Your task to perform on an android device: Go to wifi settings Image 0: 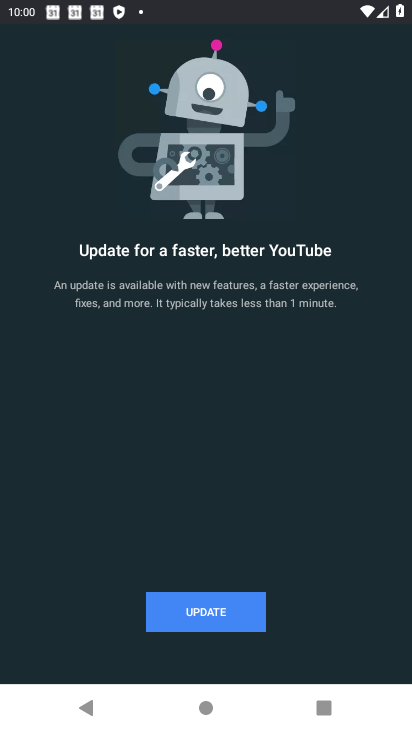
Step 0: click (238, 608)
Your task to perform on an android device: Go to wifi settings Image 1: 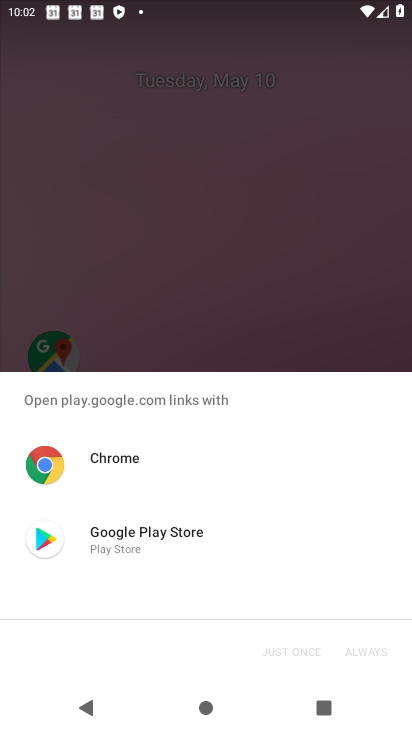
Step 1: click (310, 264)
Your task to perform on an android device: Go to wifi settings Image 2: 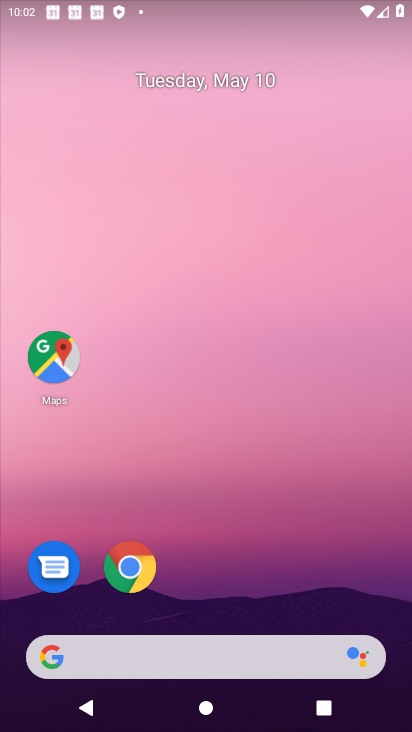
Step 2: drag from (315, 672) to (322, 4)
Your task to perform on an android device: Go to wifi settings Image 3: 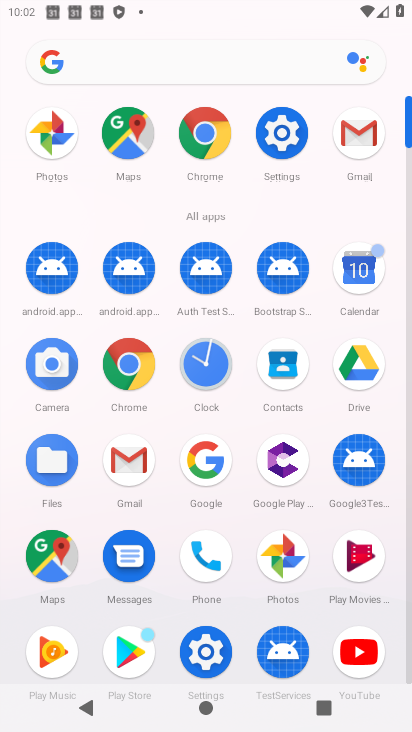
Step 3: click (199, 658)
Your task to perform on an android device: Go to wifi settings Image 4: 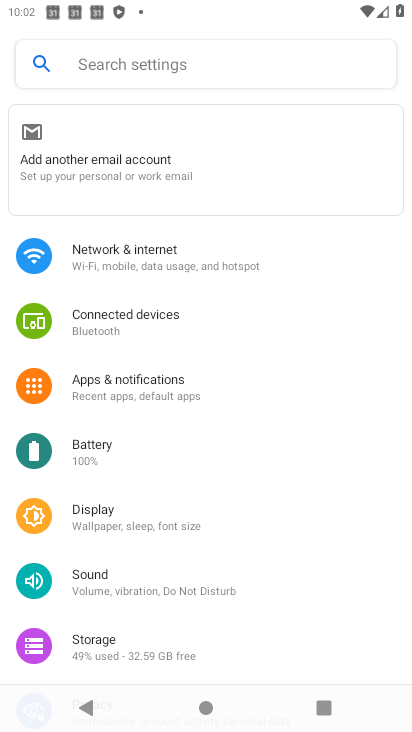
Step 4: click (162, 263)
Your task to perform on an android device: Go to wifi settings Image 5: 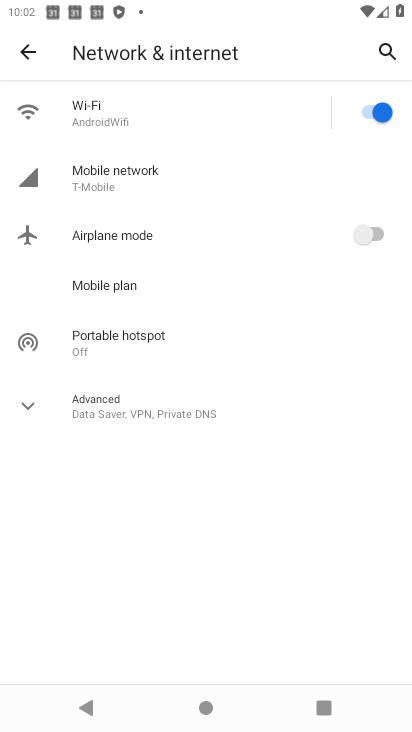
Step 5: click (149, 109)
Your task to perform on an android device: Go to wifi settings Image 6: 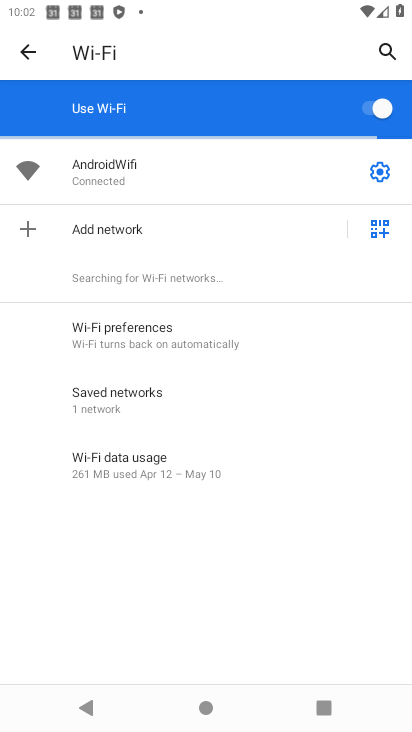
Step 6: press home button
Your task to perform on an android device: Go to wifi settings Image 7: 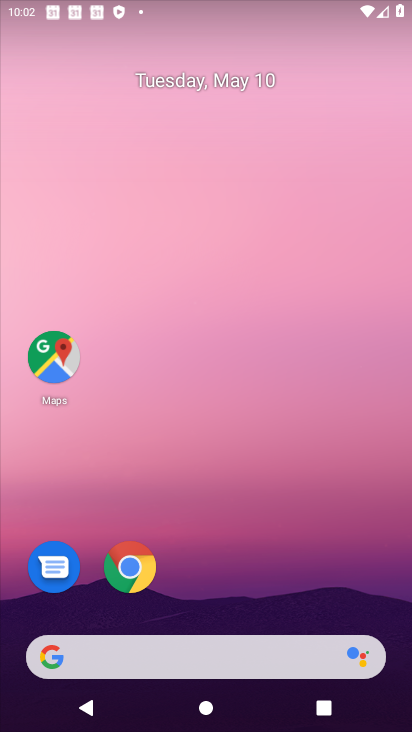
Step 7: drag from (231, 617) to (140, 0)
Your task to perform on an android device: Go to wifi settings Image 8: 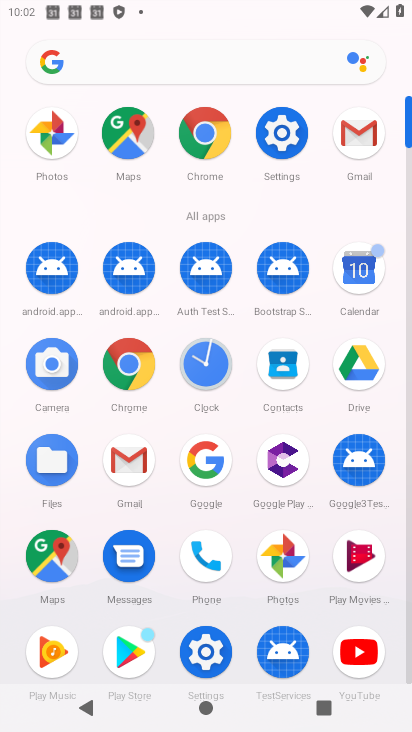
Step 8: click (270, 117)
Your task to perform on an android device: Go to wifi settings Image 9: 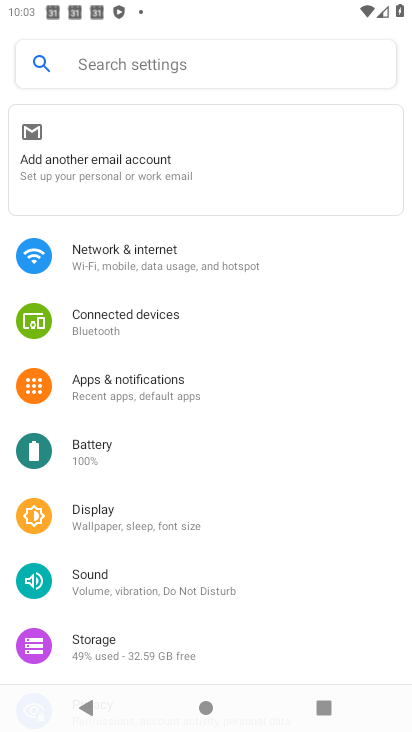
Step 9: click (176, 261)
Your task to perform on an android device: Go to wifi settings Image 10: 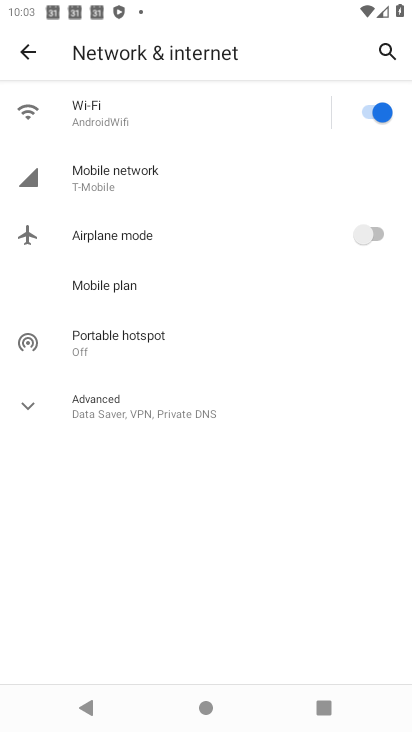
Step 10: click (139, 108)
Your task to perform on an android device: Go to wifi settings Image 11: 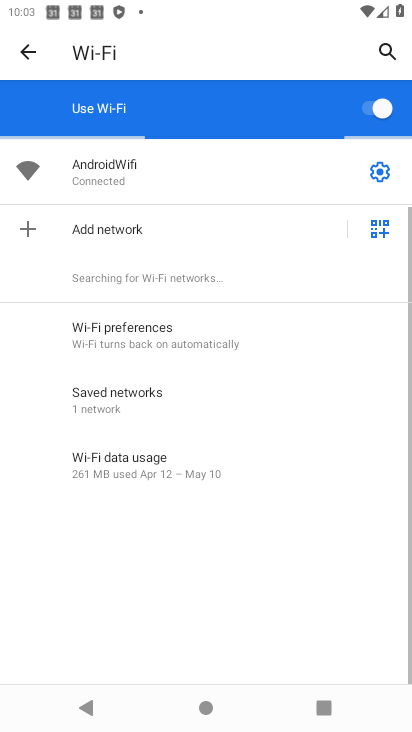
Step 11: task complete